Your task to perform on an android device: Empty the shopping cart on amazon. Search for usb-a to usb-b on amazon, select the first entry, and add it to the cart. Image 0: 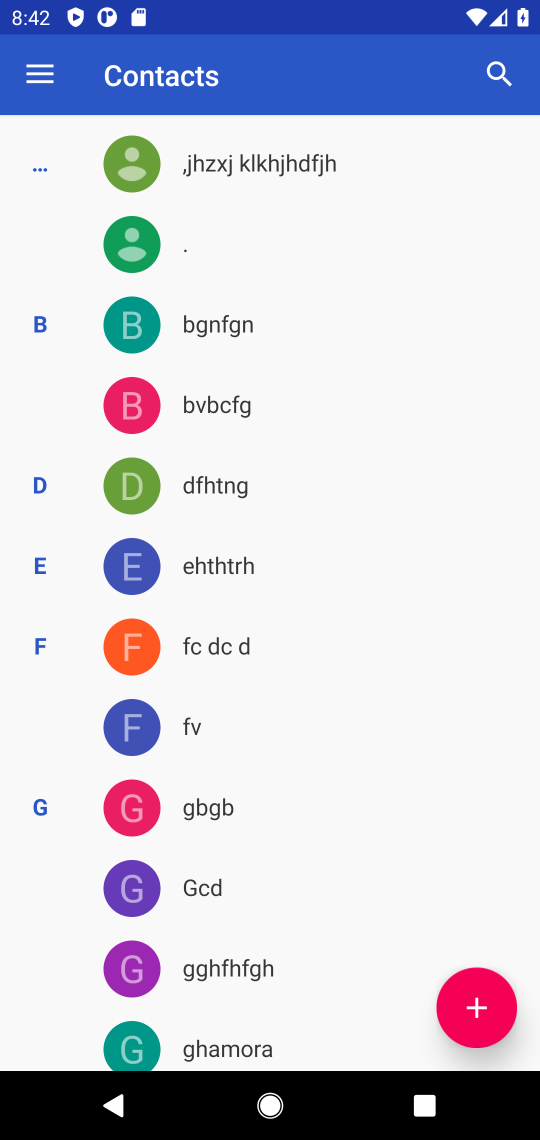
Step 0: task complete